Your task to perform on an android device: How do I get to the nearest McDonalds? Image 0: 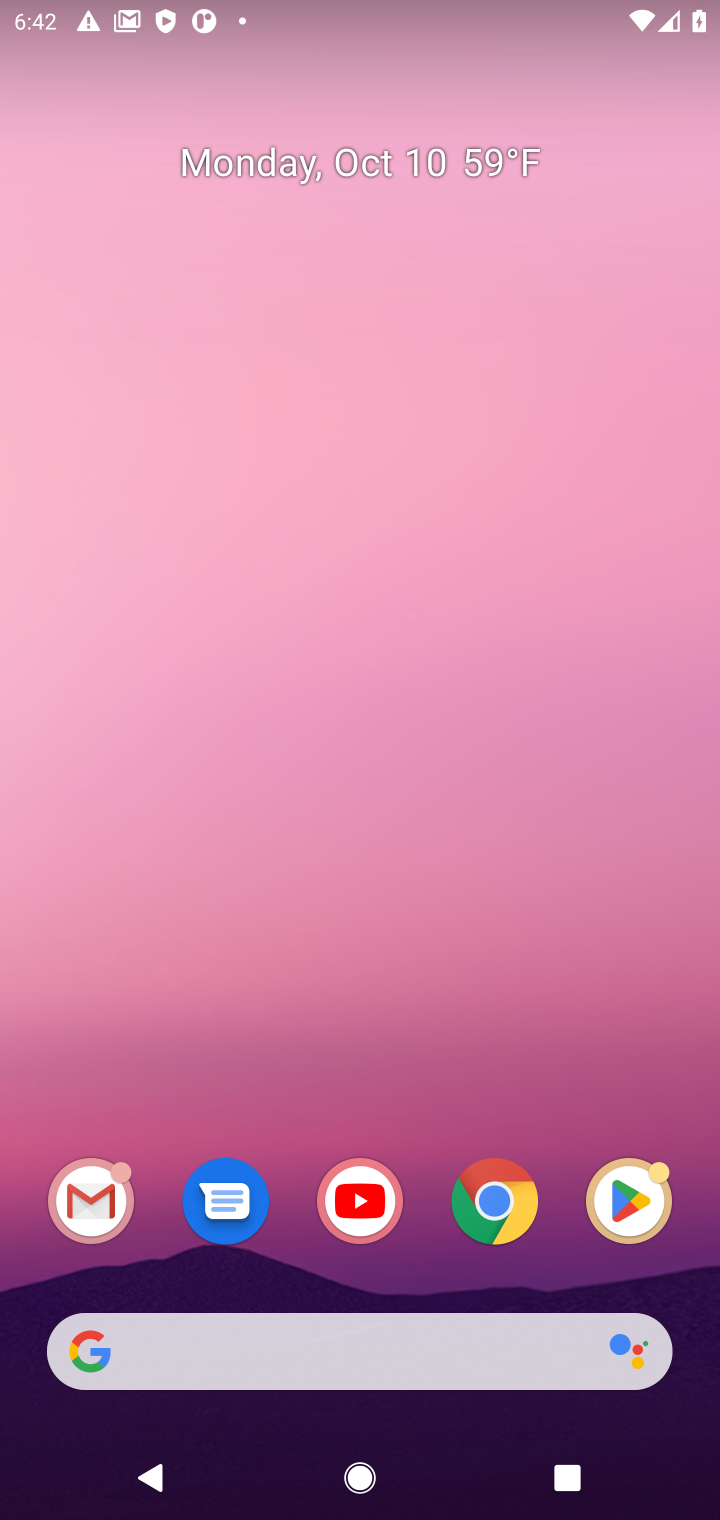
Step 0: drag from (249, 708) to (249, 176)
Your task to perform on an android device: How do I get to the nearest McDonalds? Image 1: 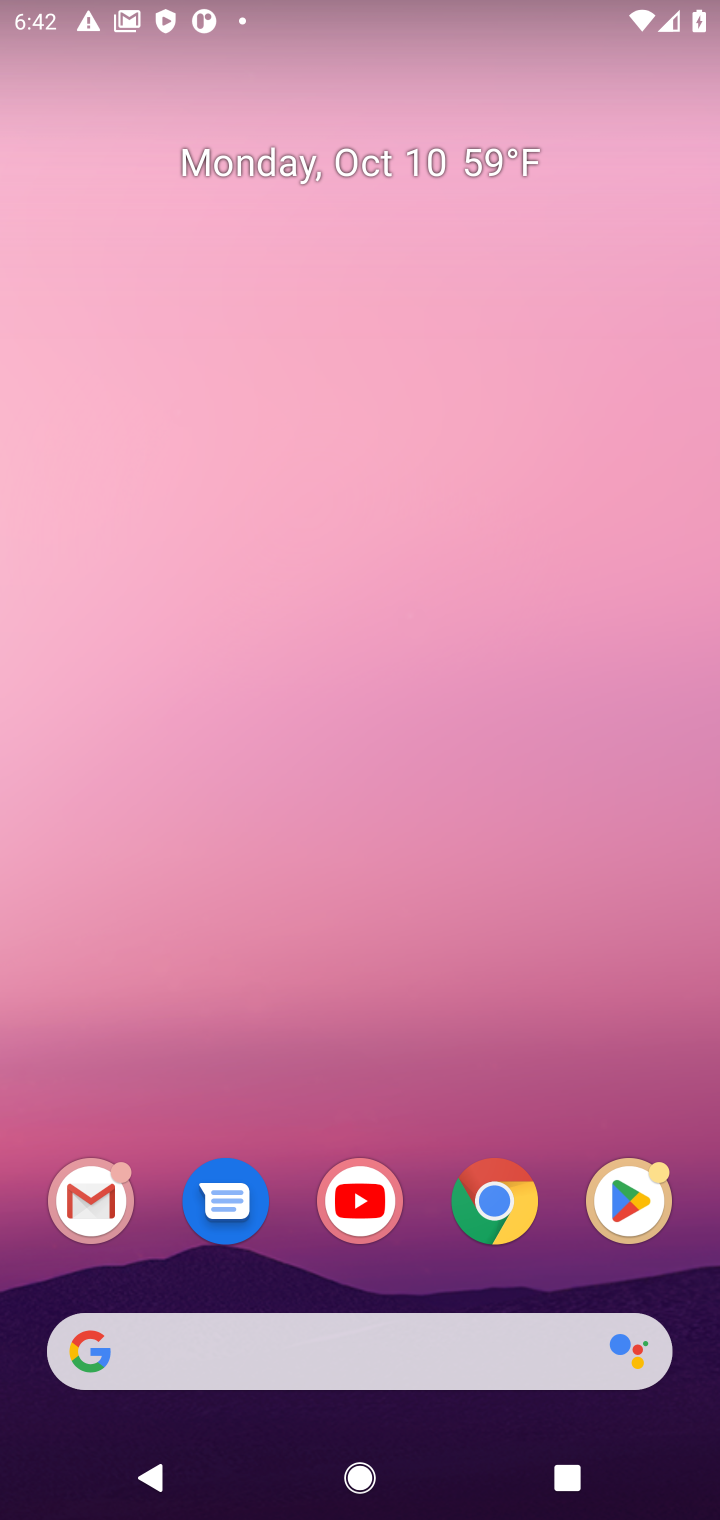
Step 1: drag from (363, 1172) to (360, 359)
Your task to perform on an android device: How do I get to the nearest McDonalds? Image 2: 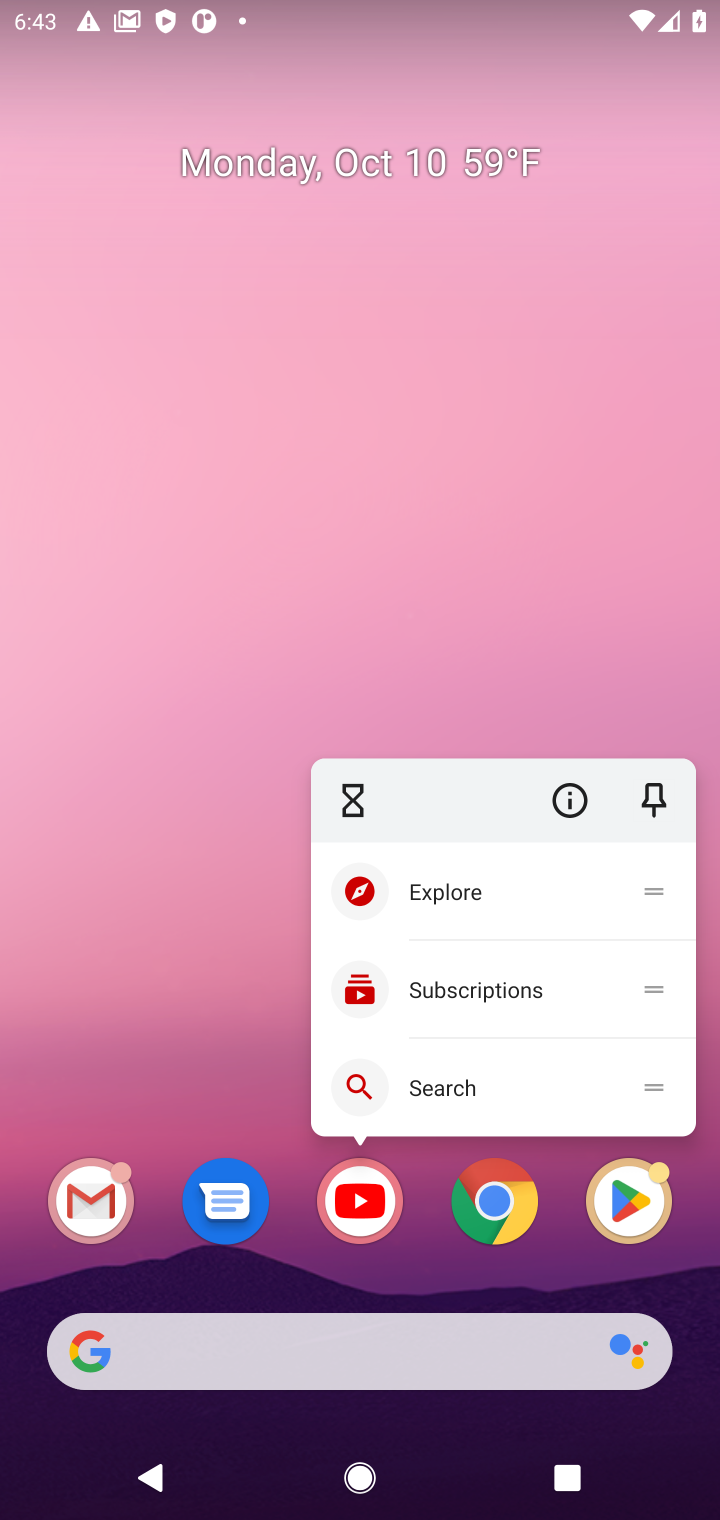
Step 2: drag from (372, 1318) to (238, 381)
Your task to perform on an android device: How do I get to the nearest McDonalds? Image 3: 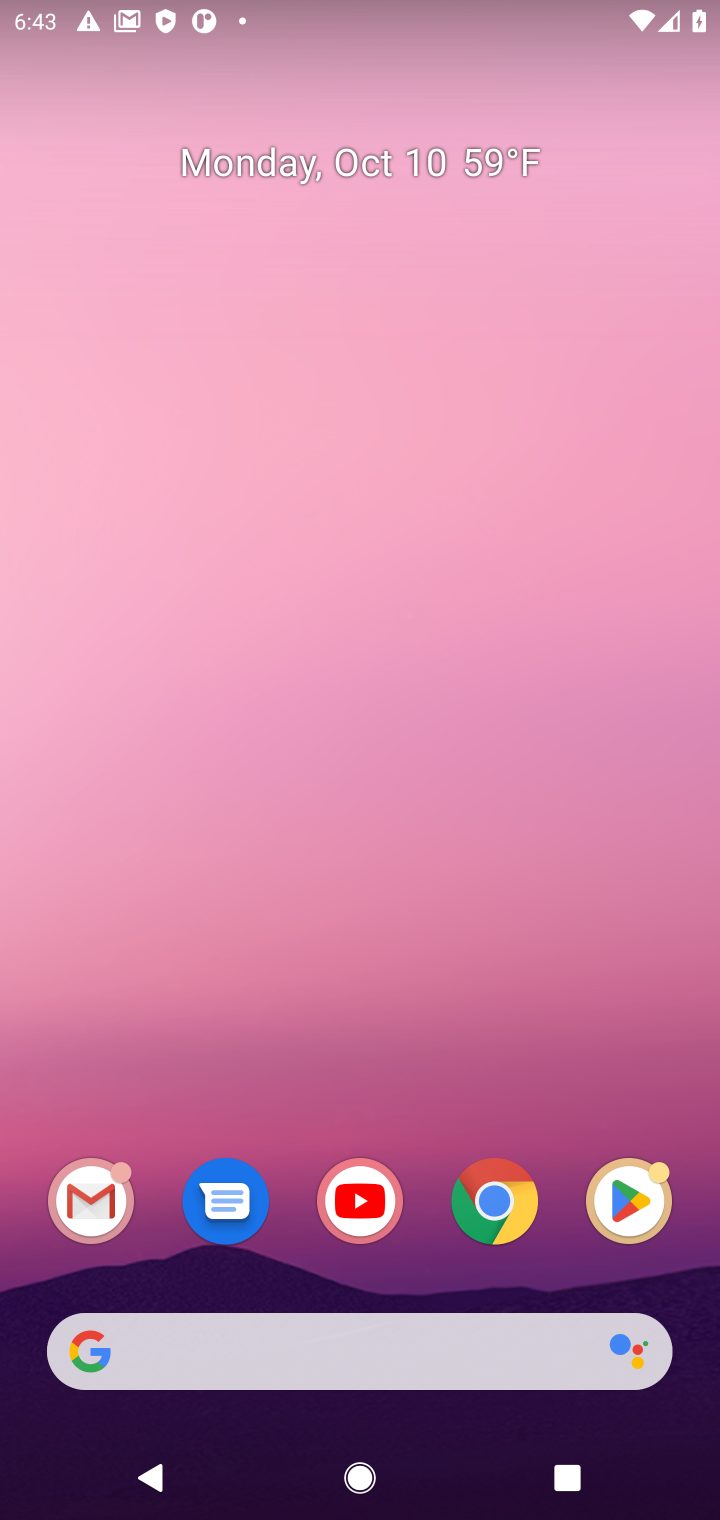
Step 3: drag from (422, 1196) to (310, 382)
Your task to perform on an android device: How do I get to the nearest McDonalds? Image 4: 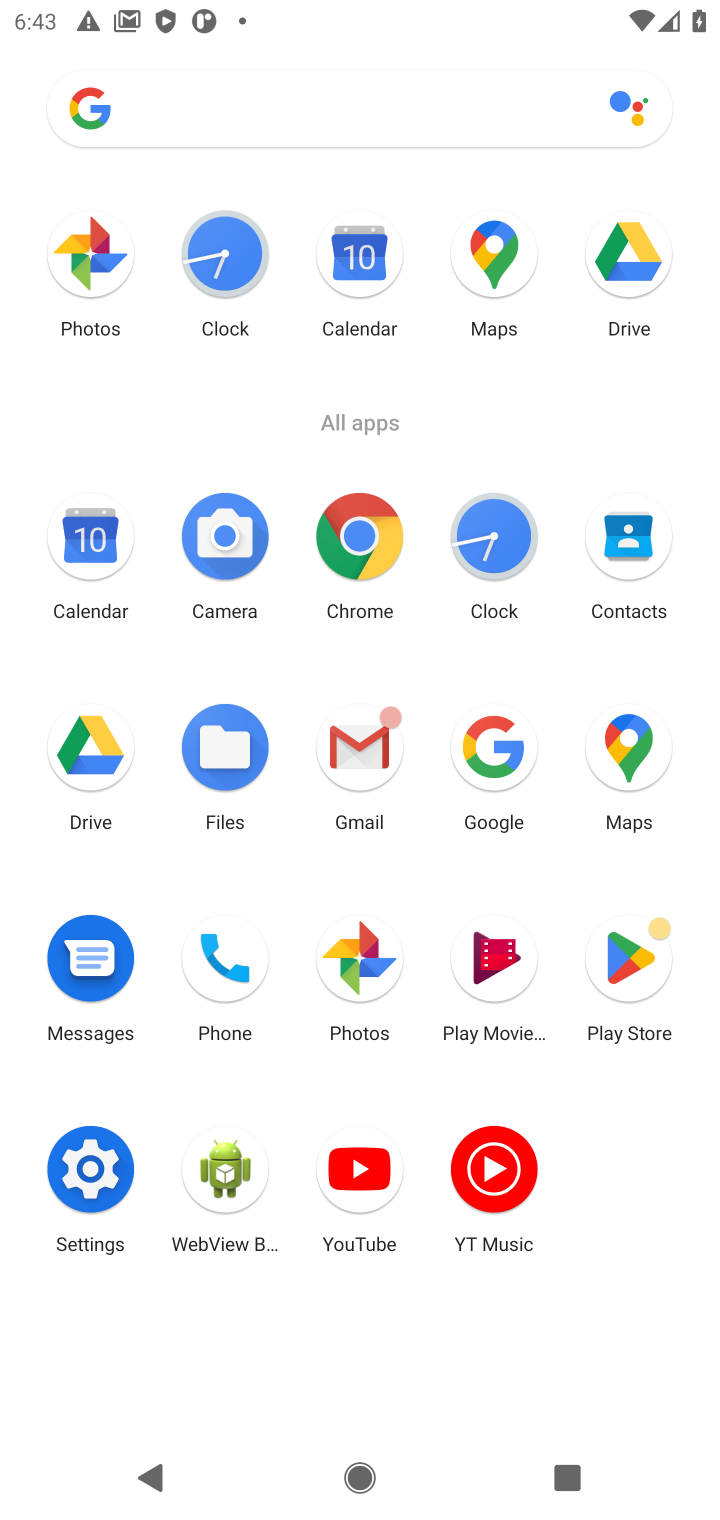
Step 4: click (489, 738)
Your task to perform on an android device: How do I get to the nearest McDonalds? Image 5: 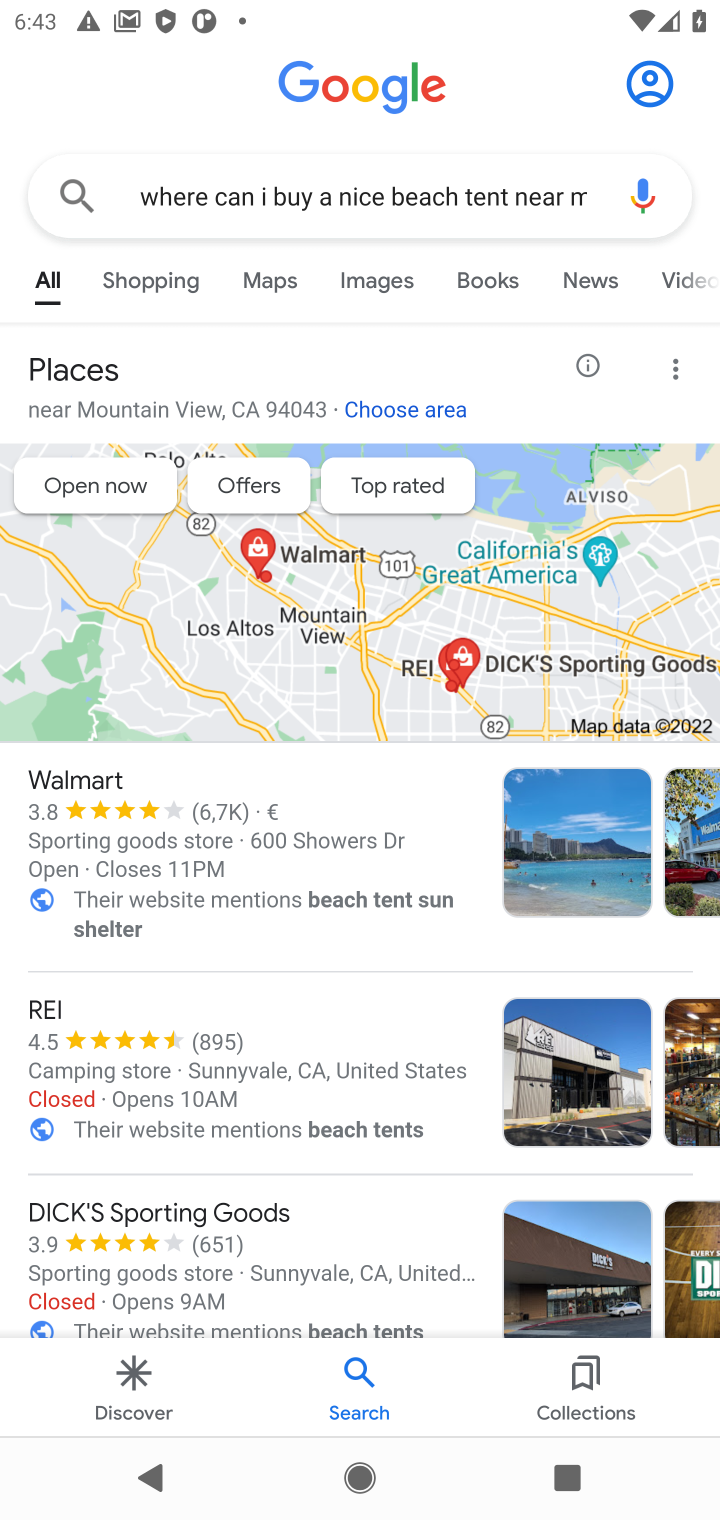
Step 5: click (279, 190)
Your task to perform on an android device: How do I get to the nearest McDonalds? Image 6: 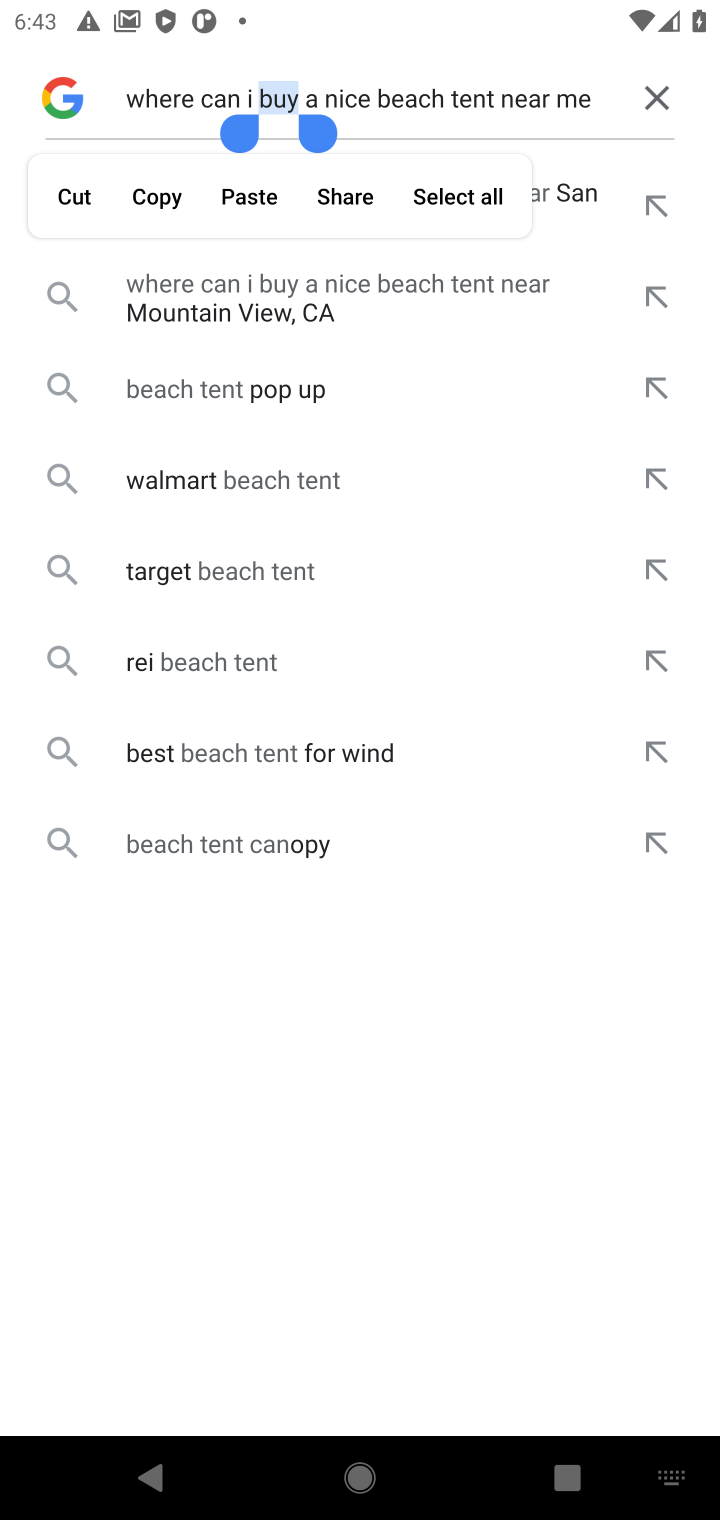
Step 6: click (648, 96)
Your task to perform on an android device: How do I get to the nearest McDonalds? Image 7: 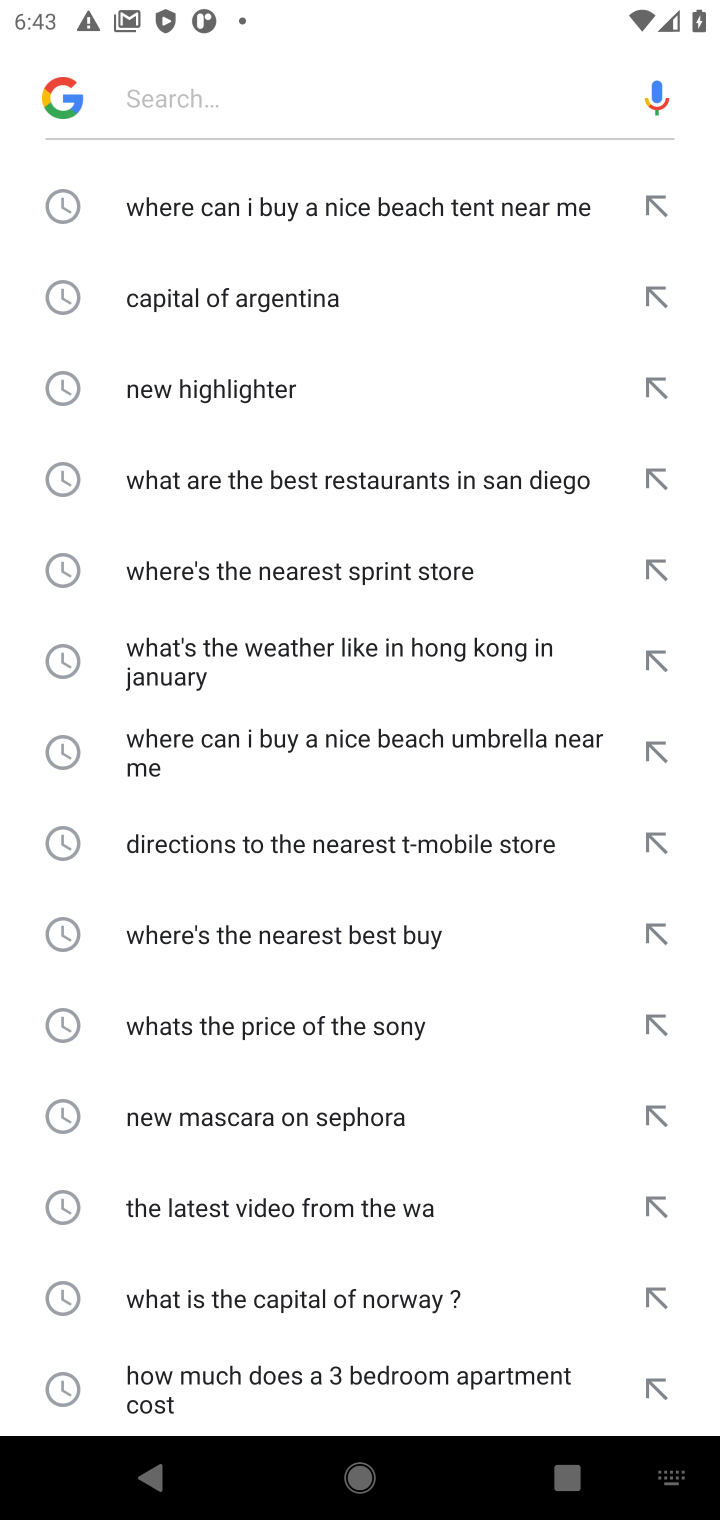
Step 7: type "How do I get to the nearest McDonalds?"
Your task to perform on an android device: How do I get to the nearest McDonalds? Image 8: 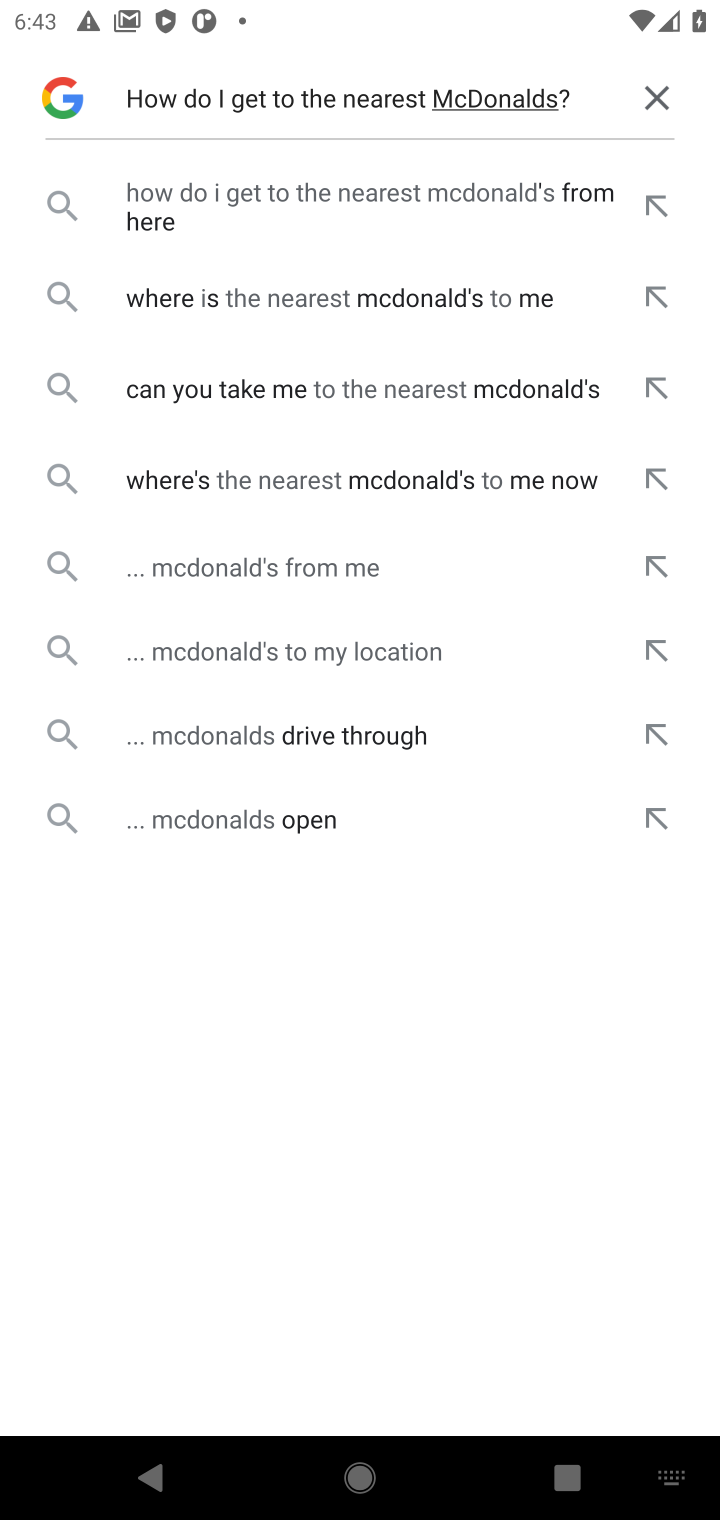
Step 8: click (295, 208)
Your task to perform on an android device: How do I get to the nearest McDonalds? Image 9: 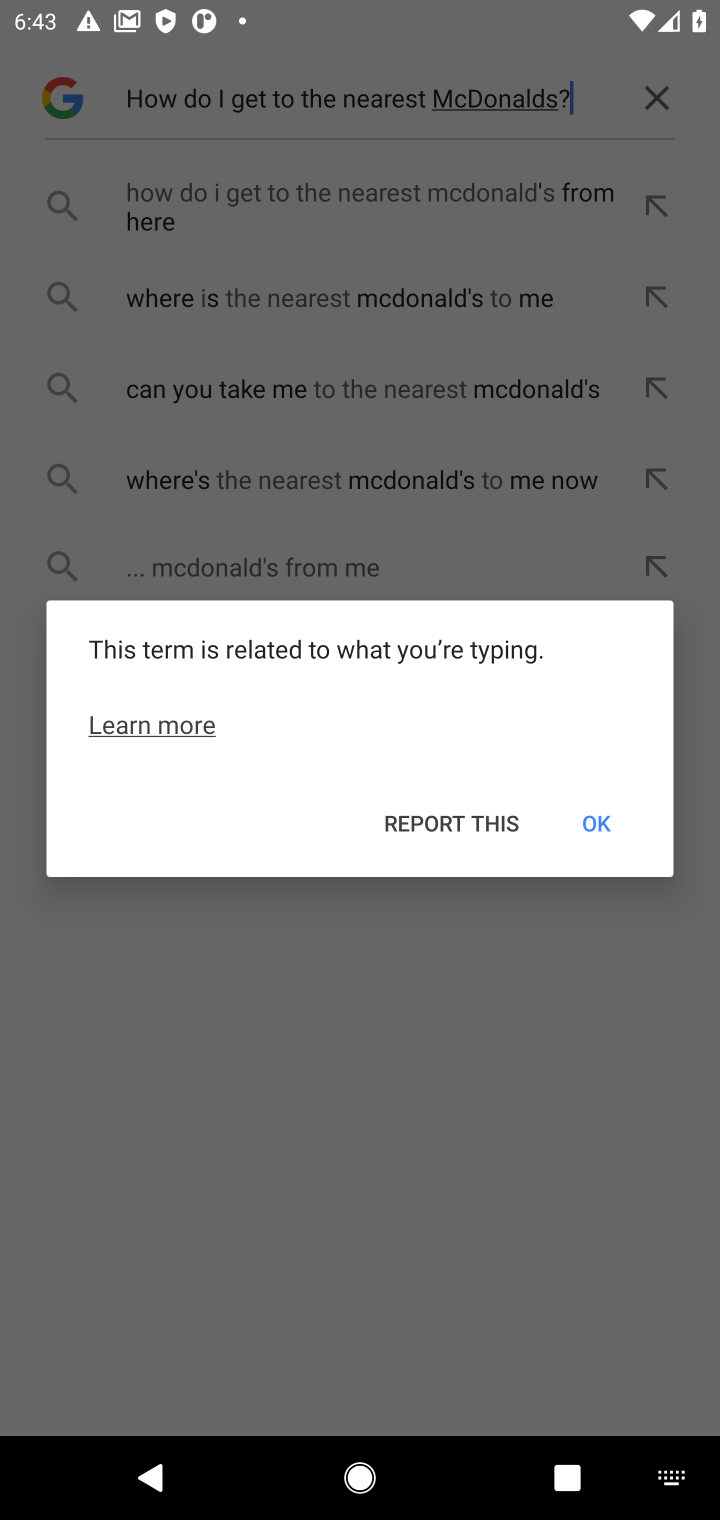
Step 9: click (463, 1016)
Your task to perform on an android device: How do I get to the nearest McDonalds? Image 10: 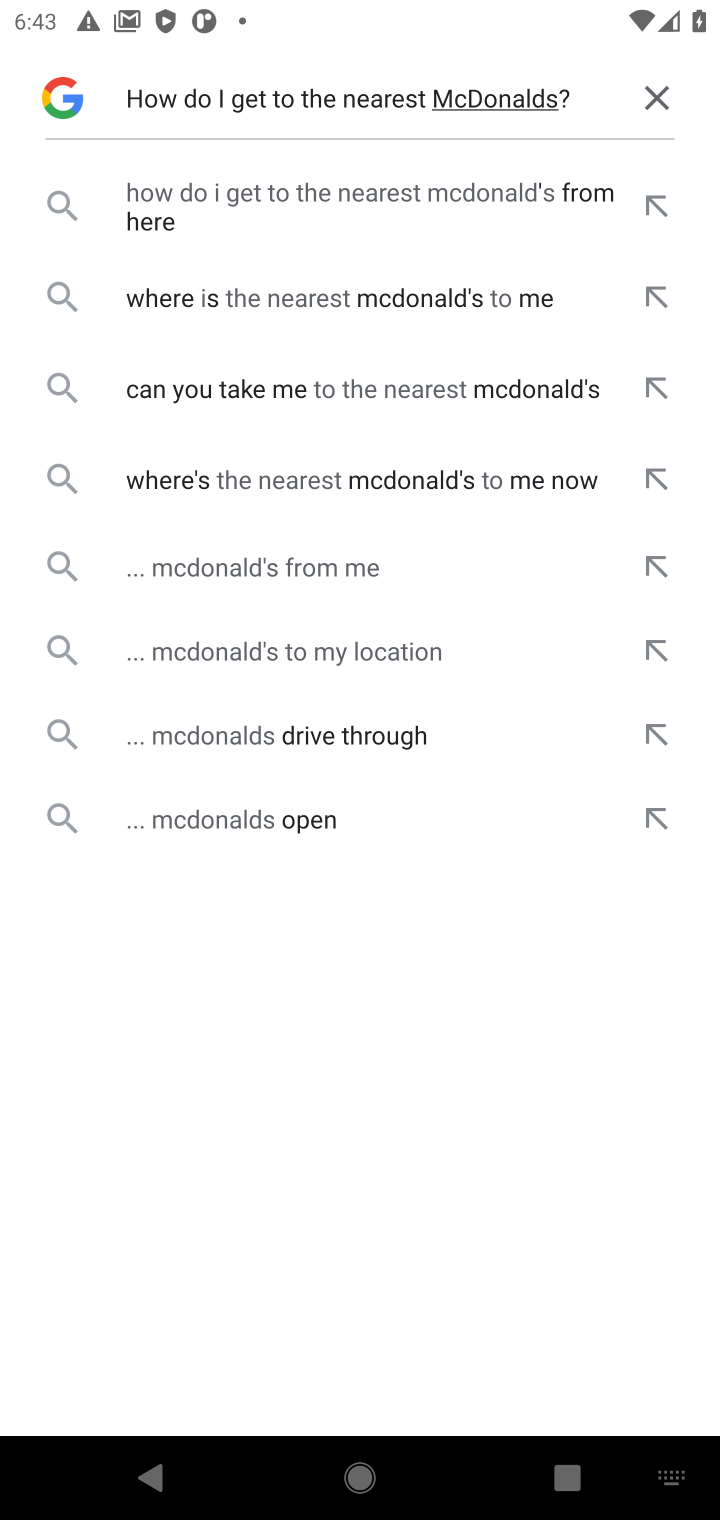
Step 10: click (606, 818)
Your task to perform on an android device: How do I get to the nearest McDonalds? Image 11: 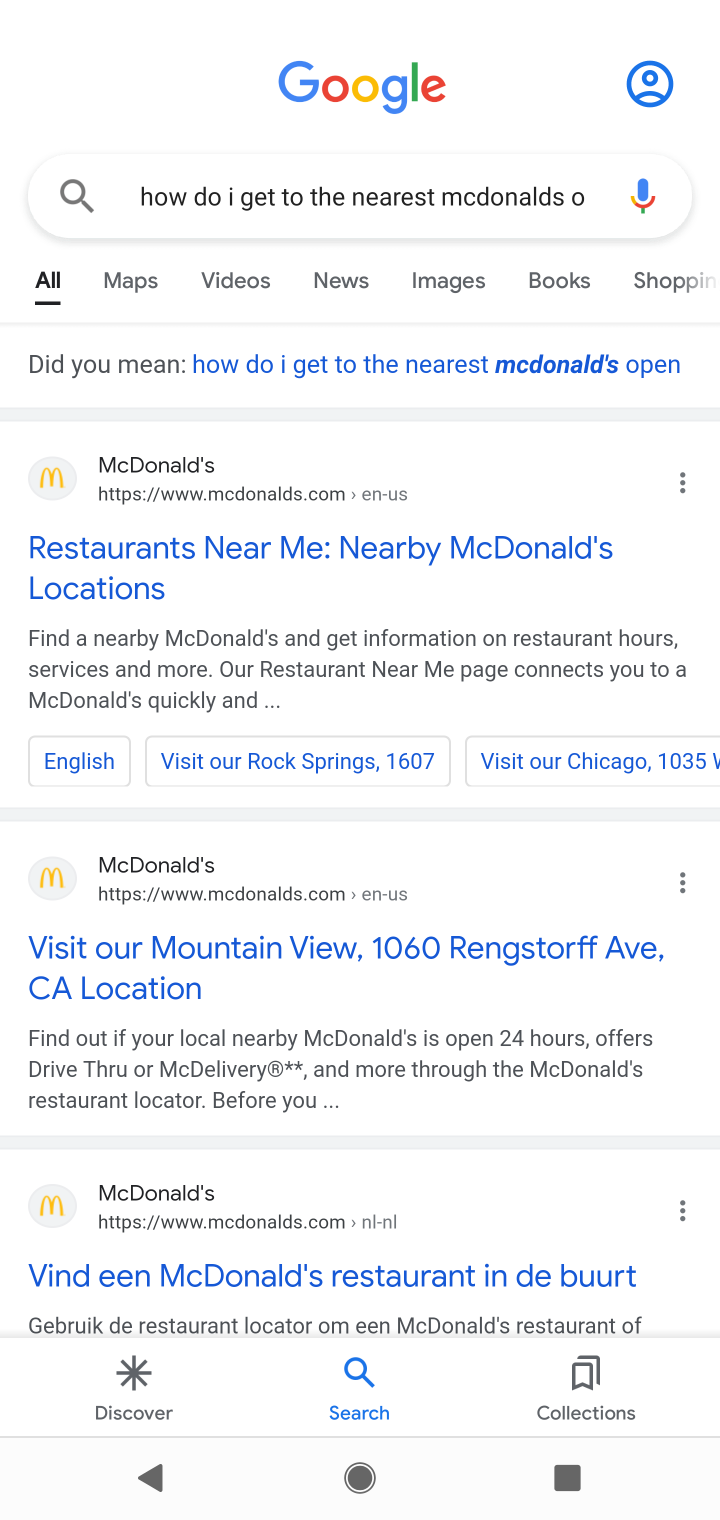
Step 11: click (175, 561)
Your task to perform on an android device: How do I get to the nearest McDonalds? Image 12: 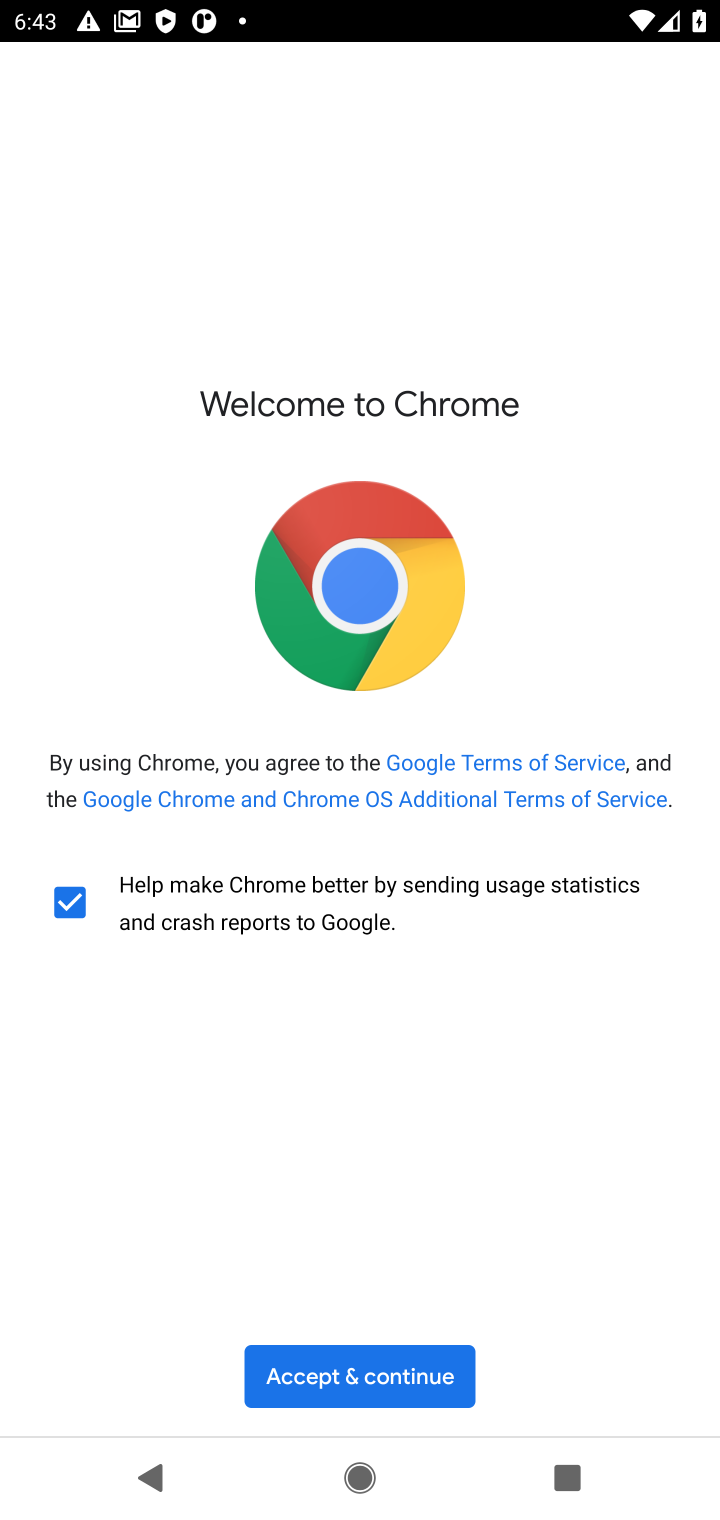
Step 12: click (321, 1353)
Your task to perform on an android device: How do I get to the nearest McDonalds? Image 13: 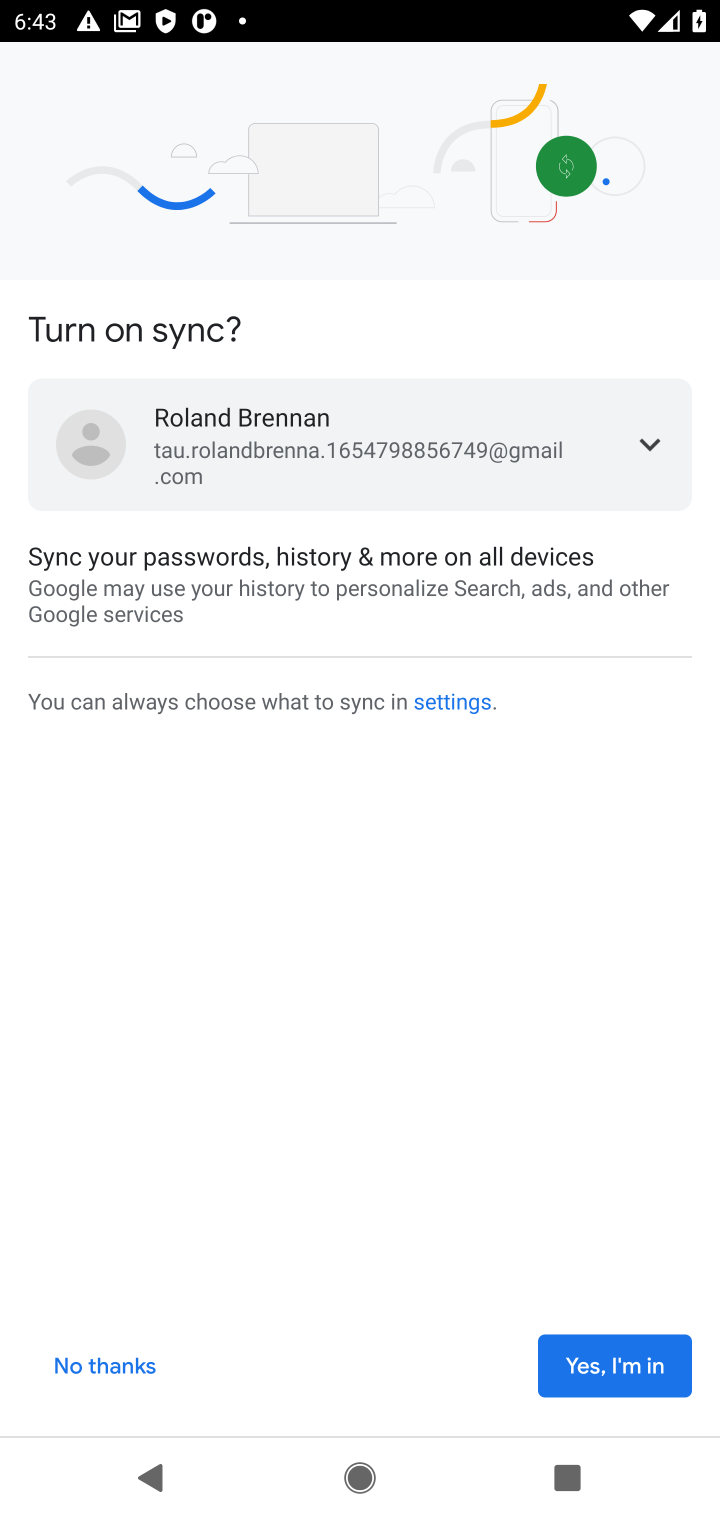
Step 13: click (627, 1354)
Your task to perform on an android device: How do I get to the nearest McDonalds? Image 14: 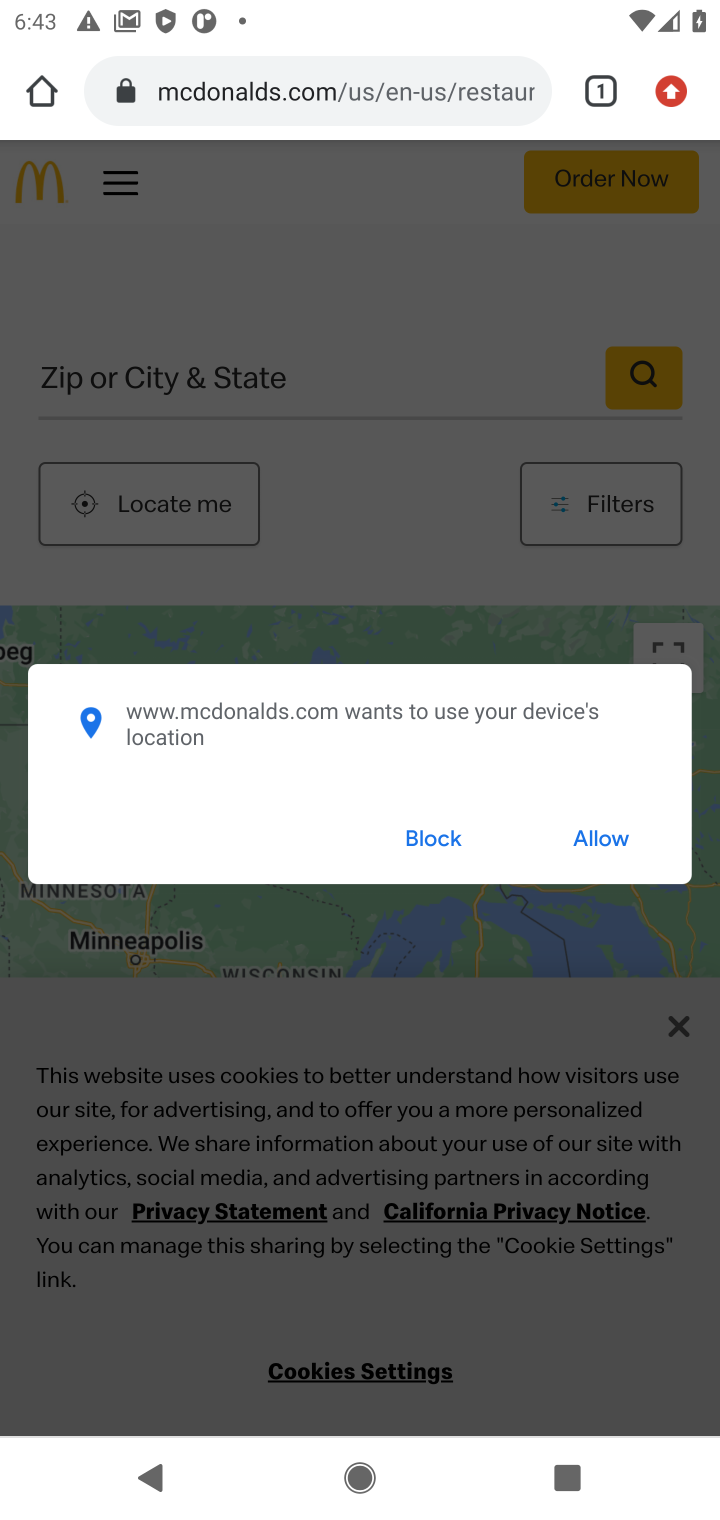
Step 14: task complete